Your task to perform on an android device: change the upload size in google photos Image 0: 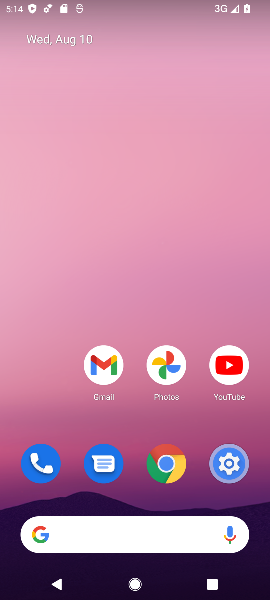
Step 0: click (167, 368)
Your task to perform on an android device: change the upload size in google photos Image 1: 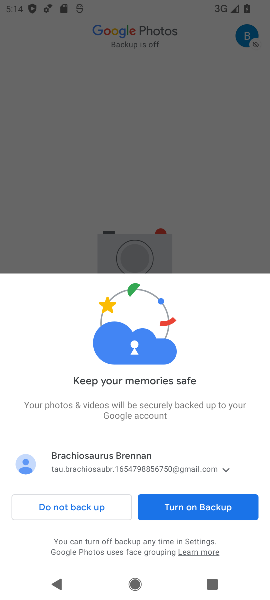
Step 1: click (82, 234)
Your task to perform on an android device: change the upload size in google photos Image 2: 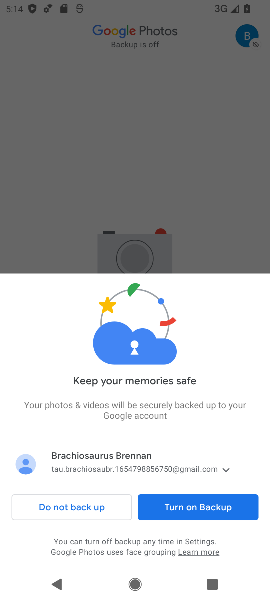
Step 2: click (103, 505)
Your task to perform on an android device: change the upload size in google photos Image 3: 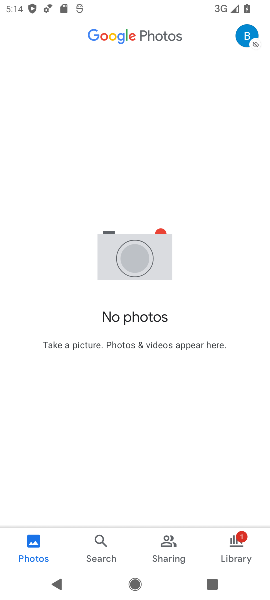
Step 3: click (250, 42)
Your task to perform on an android device: change the upload size in google photos Image 4: 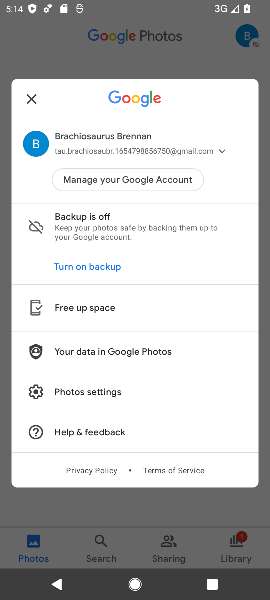
Step 4: click (85, 390)
Your task to perform on an android device: change the upload size in google photos Image 5: 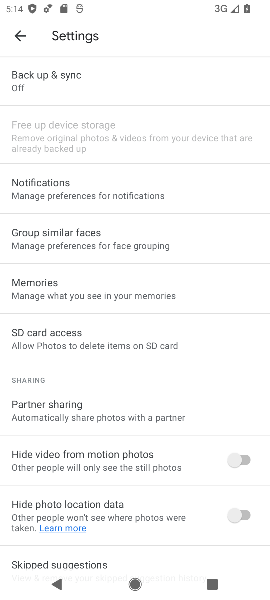
Step 5: click (42, 69)
Your task to perform on an android device: change the upload size in google photos Image 6: 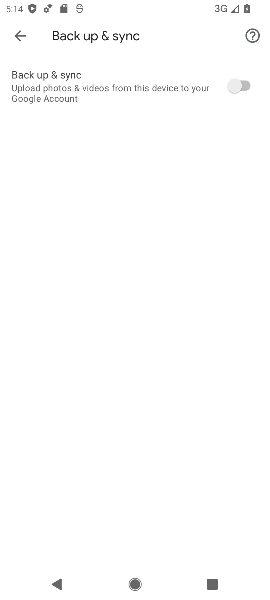
Step 6: click (49, 77)
Your task to perform on an android device: change the upload size in google photos Image 7: 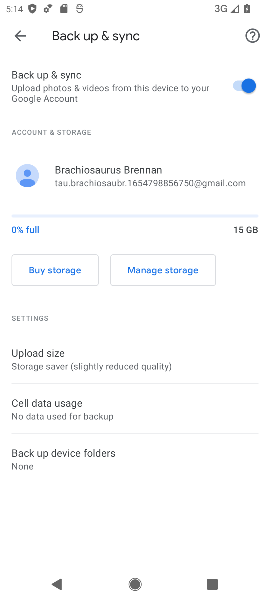
Step 7: click (56, 355)
Your task to perform on an android device: change the upload size in google photos Image 8: 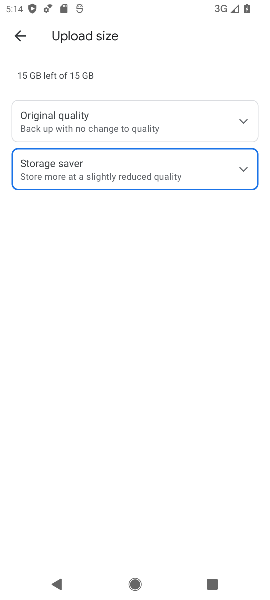
Step 8: task complete